Your task to perform on an android device: choose inbox layout in the gmail app Image 0: 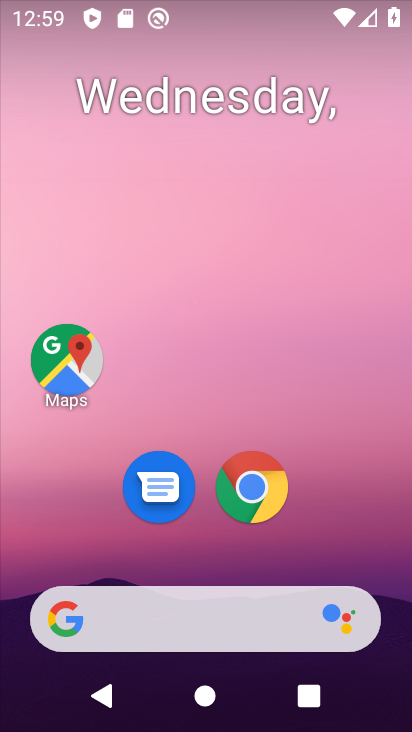
Step 0: drag from (258, 291) to (248, 18)
Your task to perform on an android device: choose inbox layout in the gmail app Image 1: 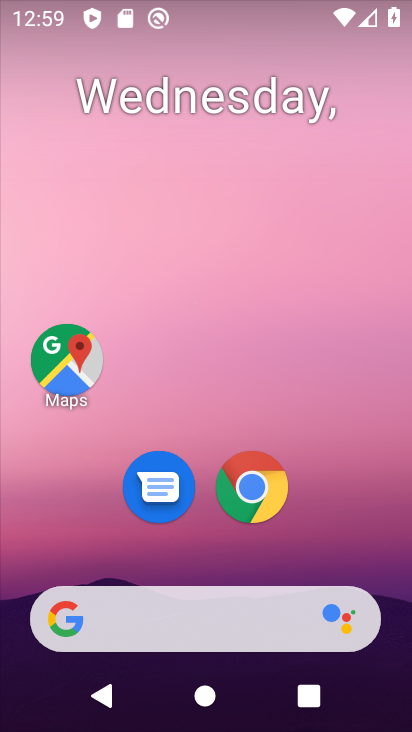
Step 1: drag from (219, 539) to (222, 0)
Your task to perform on an android device: choose inbox layout in the gmail app Image 2: 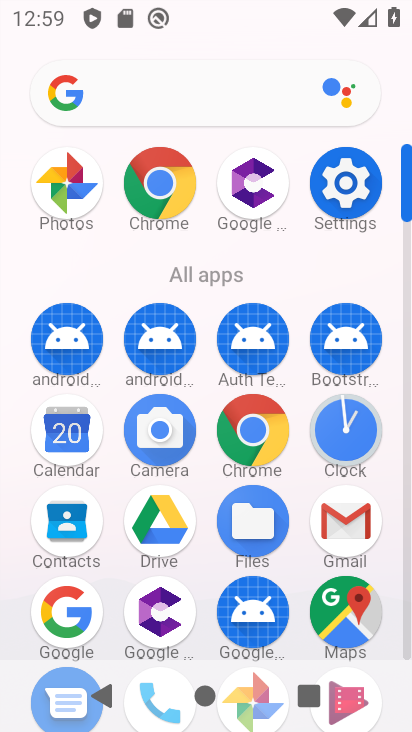
Step 2: click (340, 524)
Your task to perform on an android device: choose inbox layout in the gmail app Image 3: 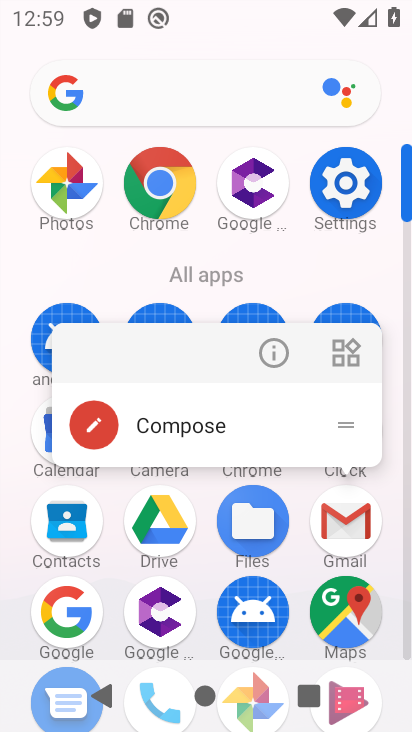
Step 3: click (337, 512)
Your task to perform on an android device: choose inbox layout in the gmail app Image 4: 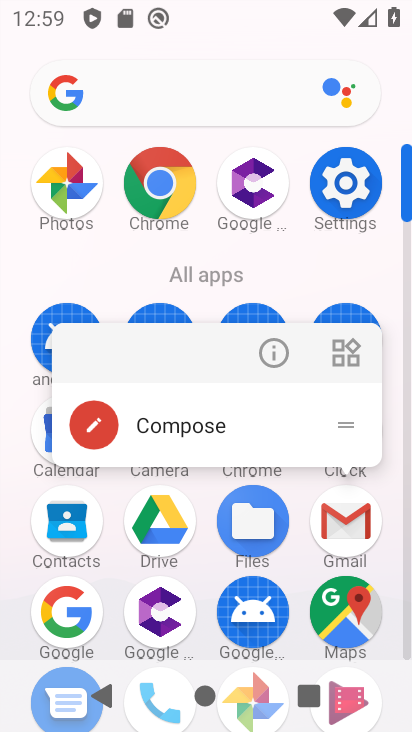
Step 4: click (334, 509)
Your task to perform on an android device: choose inbox layout in the gmail app Image 5: 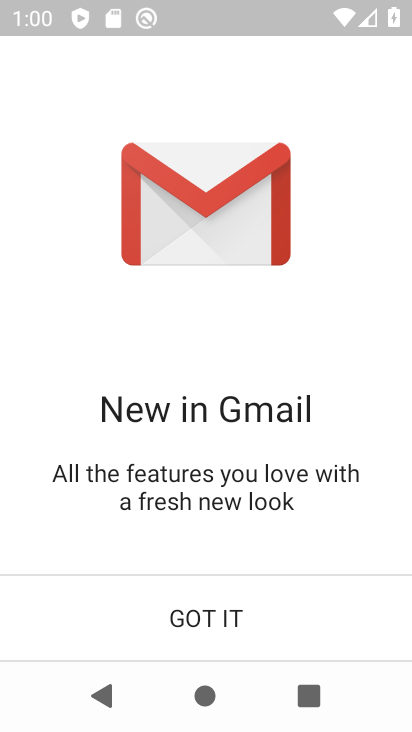
Step 5: click (243, 629)
Your task to perform on an android device: choose inbox layout in the gmail app Image 6: 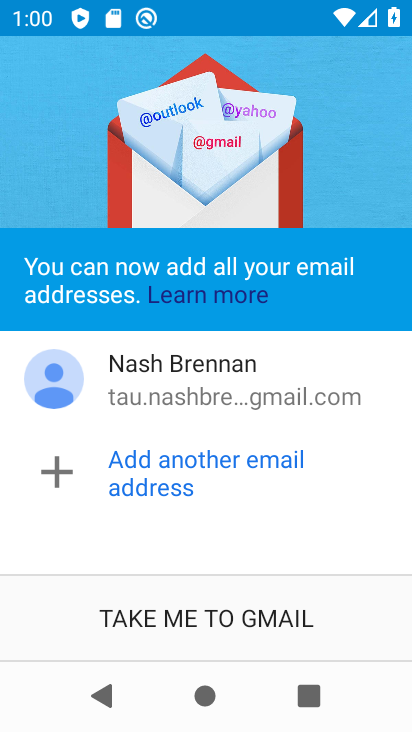
Step 6: click (243, 629)
Your task to perform on an android device: choose inbox layout in the gmail app Image 7: 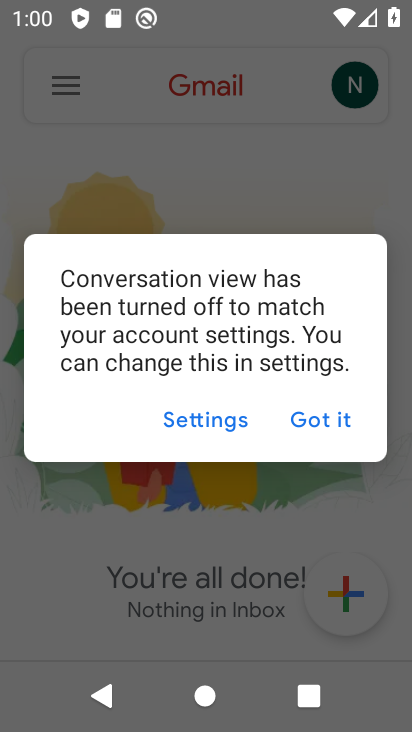
Step 7: click (316, 413)
Your task to perform on an android device: choose inbox layout in the gmail app Image 8: 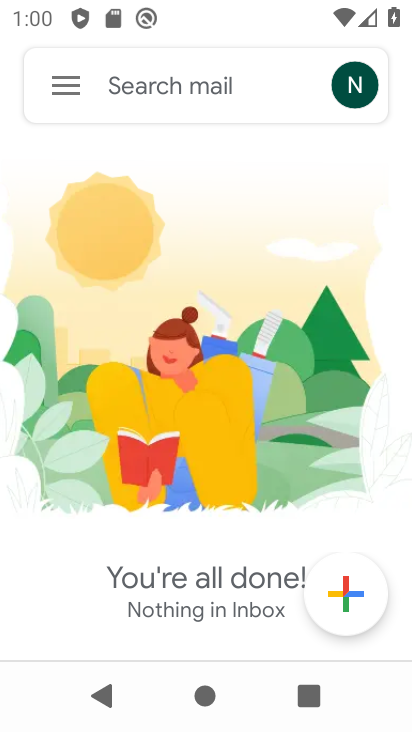
Step 8: click (69, 86)
Your task to perform on an android device: choose inbox layout in the gmail app Image 9: 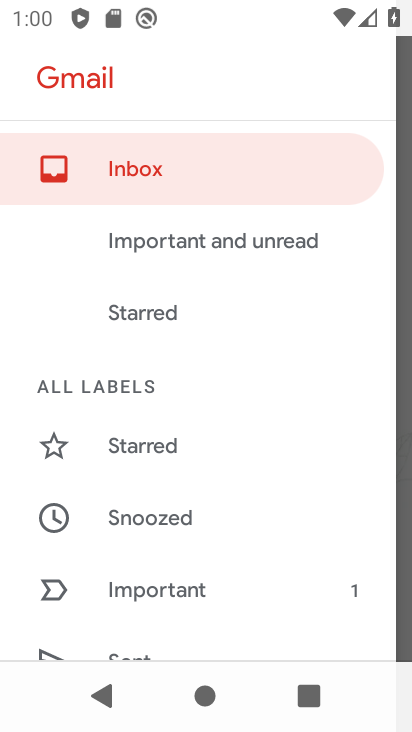
Step 9: drag from (177, 529) to (236, 109)
Your task to perform on an android device: choose inbox layout in the gmail app Image 10: 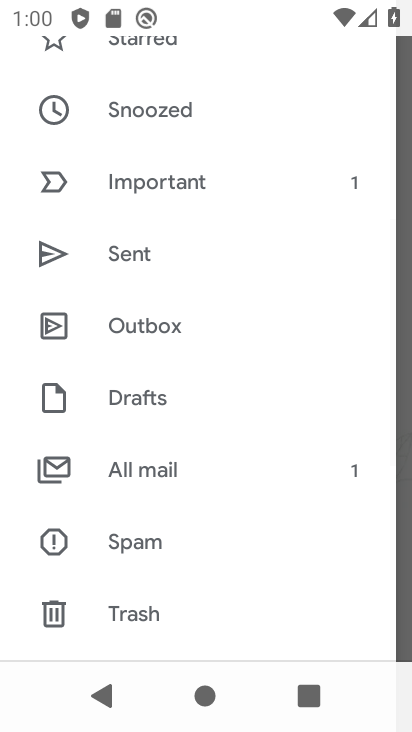
Step 10: drag from (215, 556) to (269, 69)
Your task to perform on an android device: choose inbox layout in the gmail app Image 11: 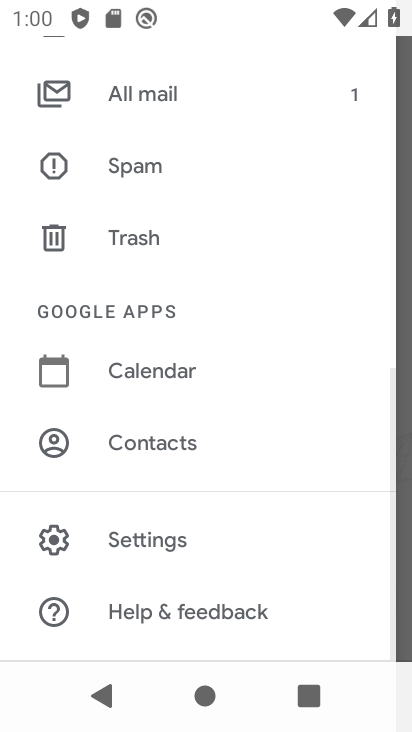
Step 11: click (170, 532)
Your task to perform on an android device: choose inbox layout in the gmail app Image 12: 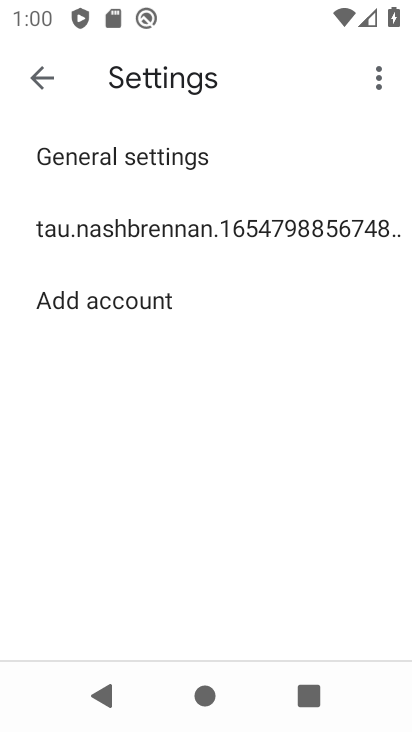
Step 12: click (246, 227)
Your task to perform on an android device: choose inbox layout in the gmail app Image 13: 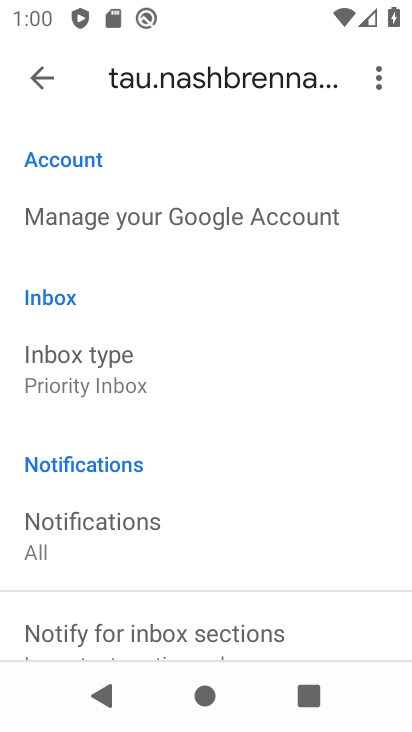
Step 13: click (116, 369)
Your task to perform on an android device: choose inbox layout in the gmail app Image 14: 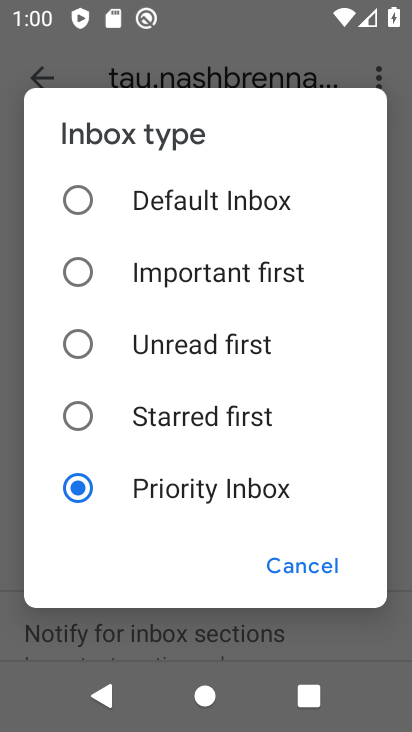
Step 14: click (84, 194)
Your task to perform on an android device: choose inbox layout in the gmail app Image 15: 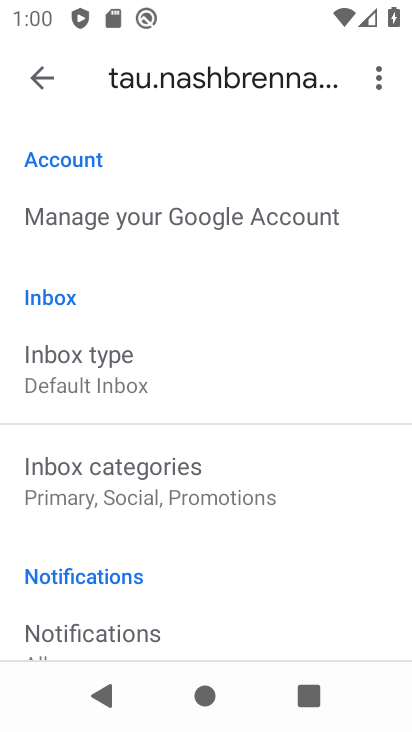
Step 15: task complete